Your task to perform on an android device: allow notifications from all sites in the chrome app Image 0: 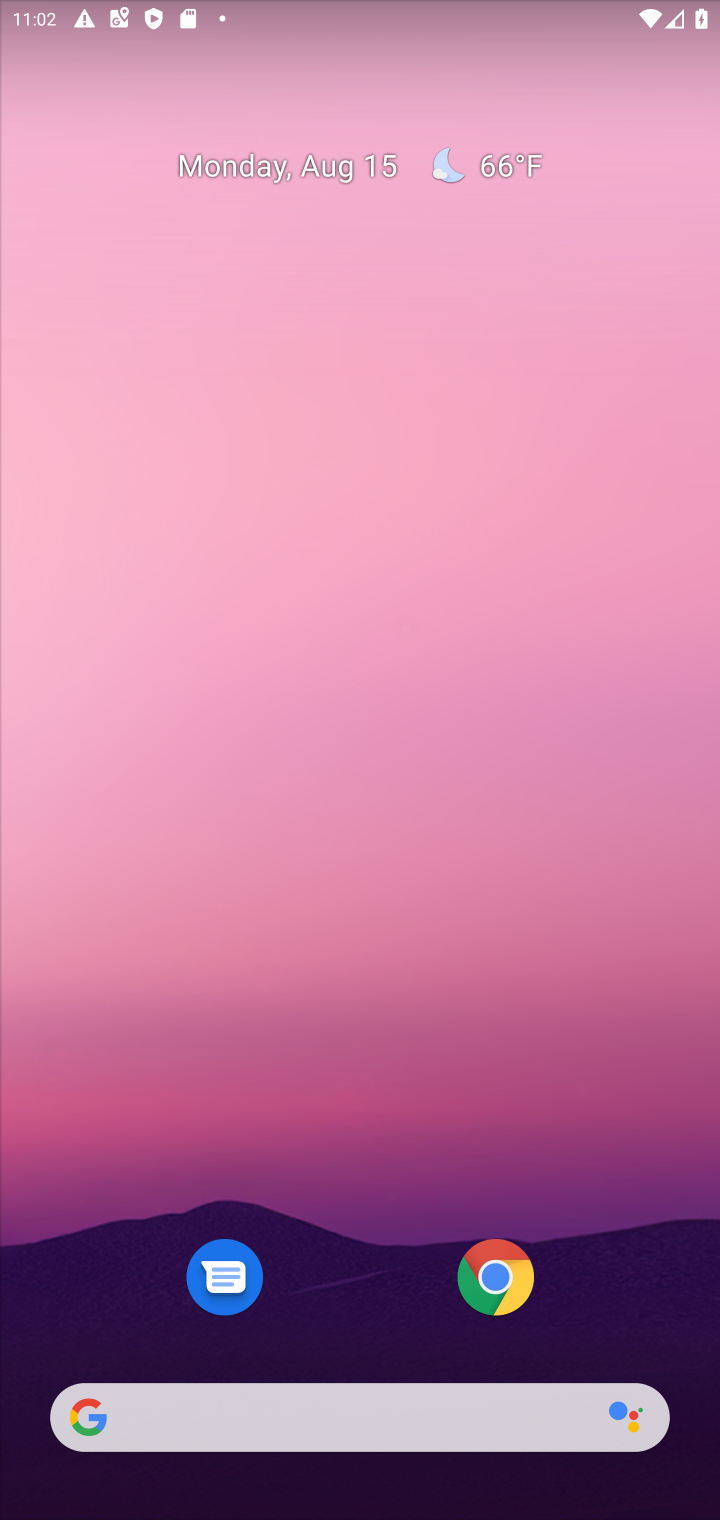
Step 0: drag from (387, 1302) to (374, 769)
Your task to perform on an android device: allow notifications from all sites in the chrome app Image 1: 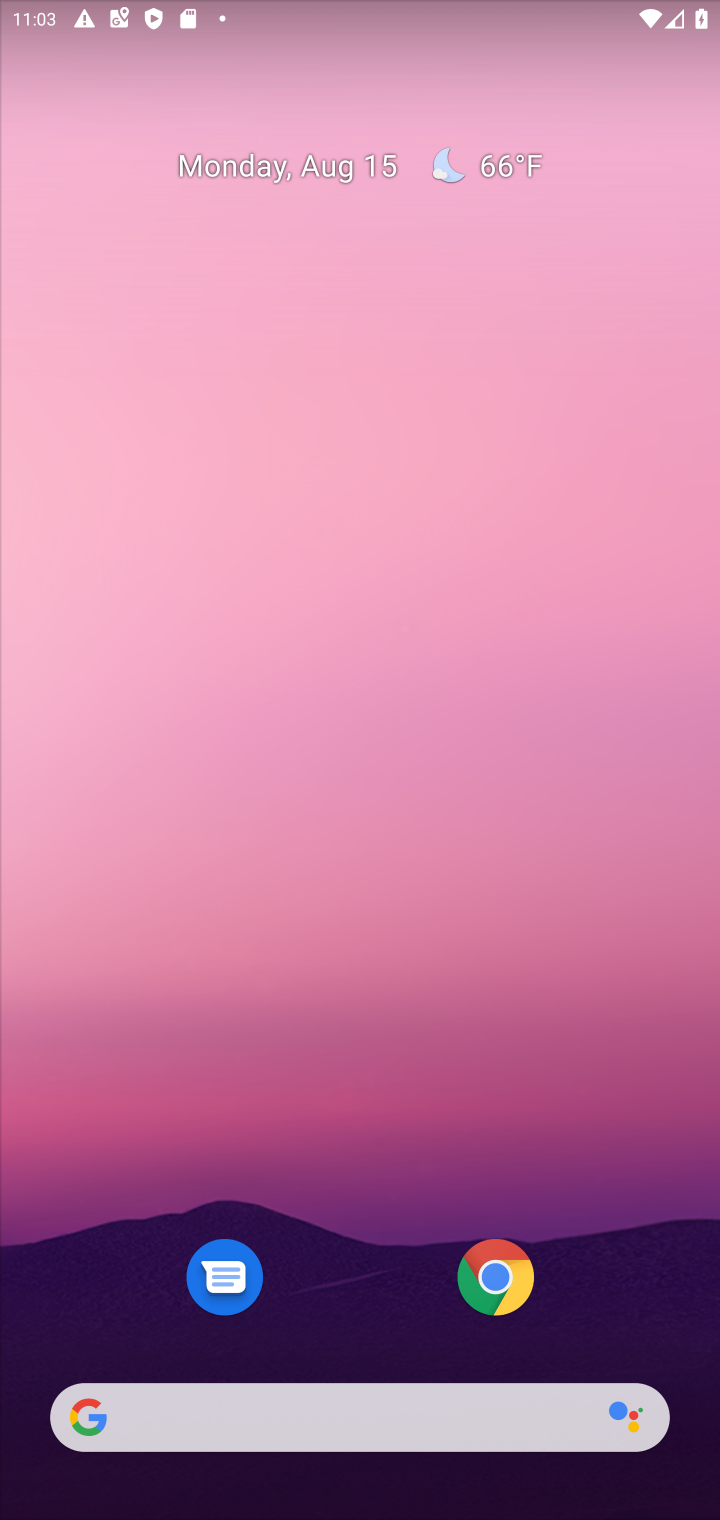
Step 1: click (536, 1295)
Your task to perform on an android device: allow notifications from all sites in the chrome app Image 2: 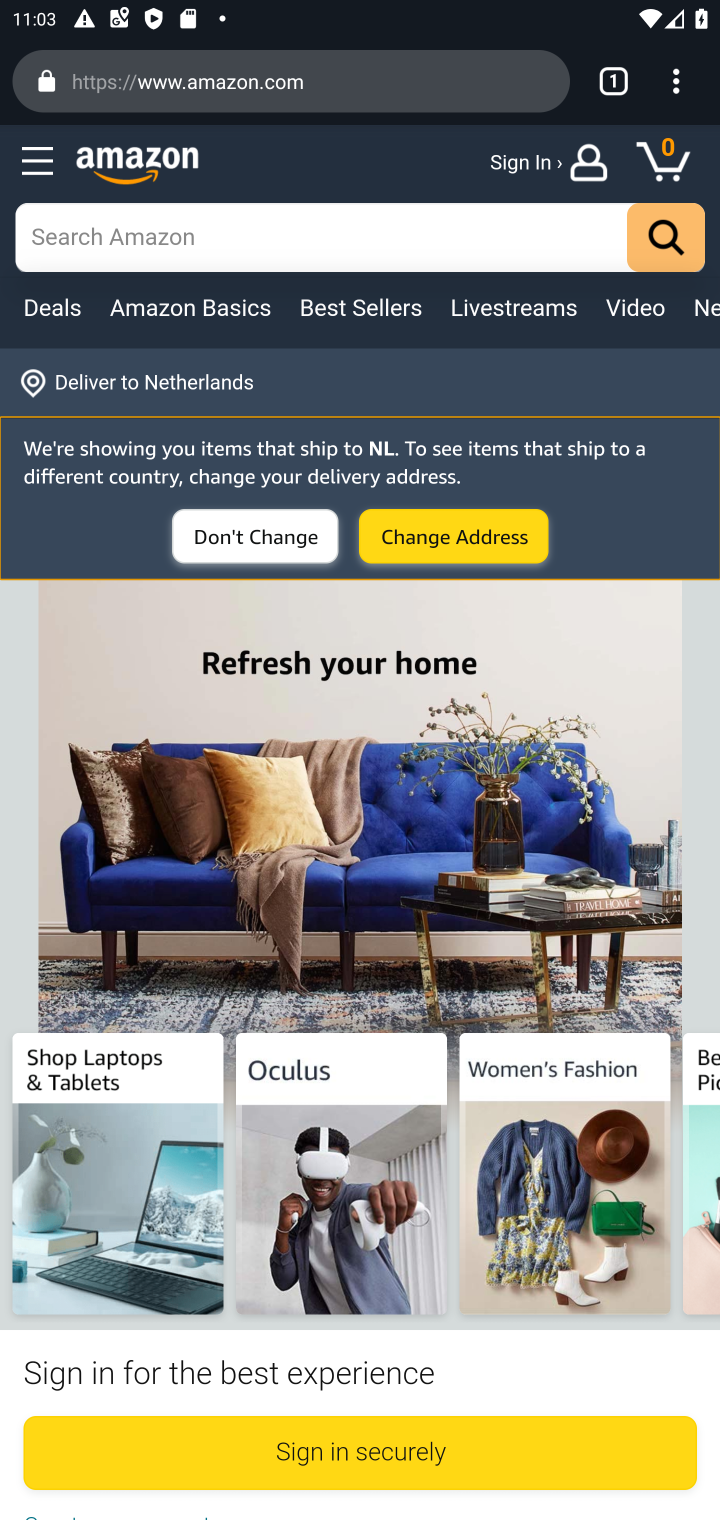
Step 2: click (680, 101)
Your task to perform on an android device: allow notifications from all sites in the chrome app Image 3: 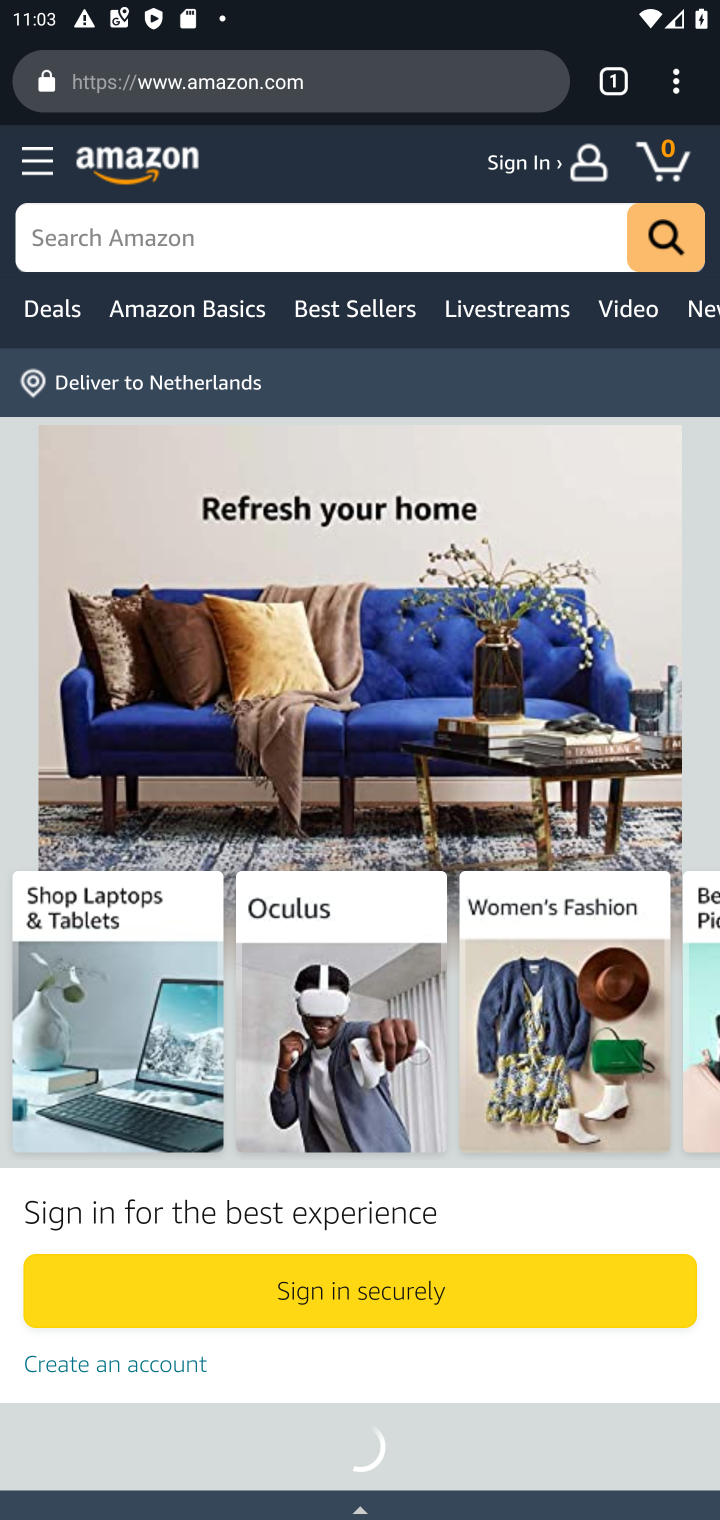
Step 3: drag from (680, 101) to (437, 1061)
Your task to perform on an android device: allow notifications from all sites in the chrome app Image 4: 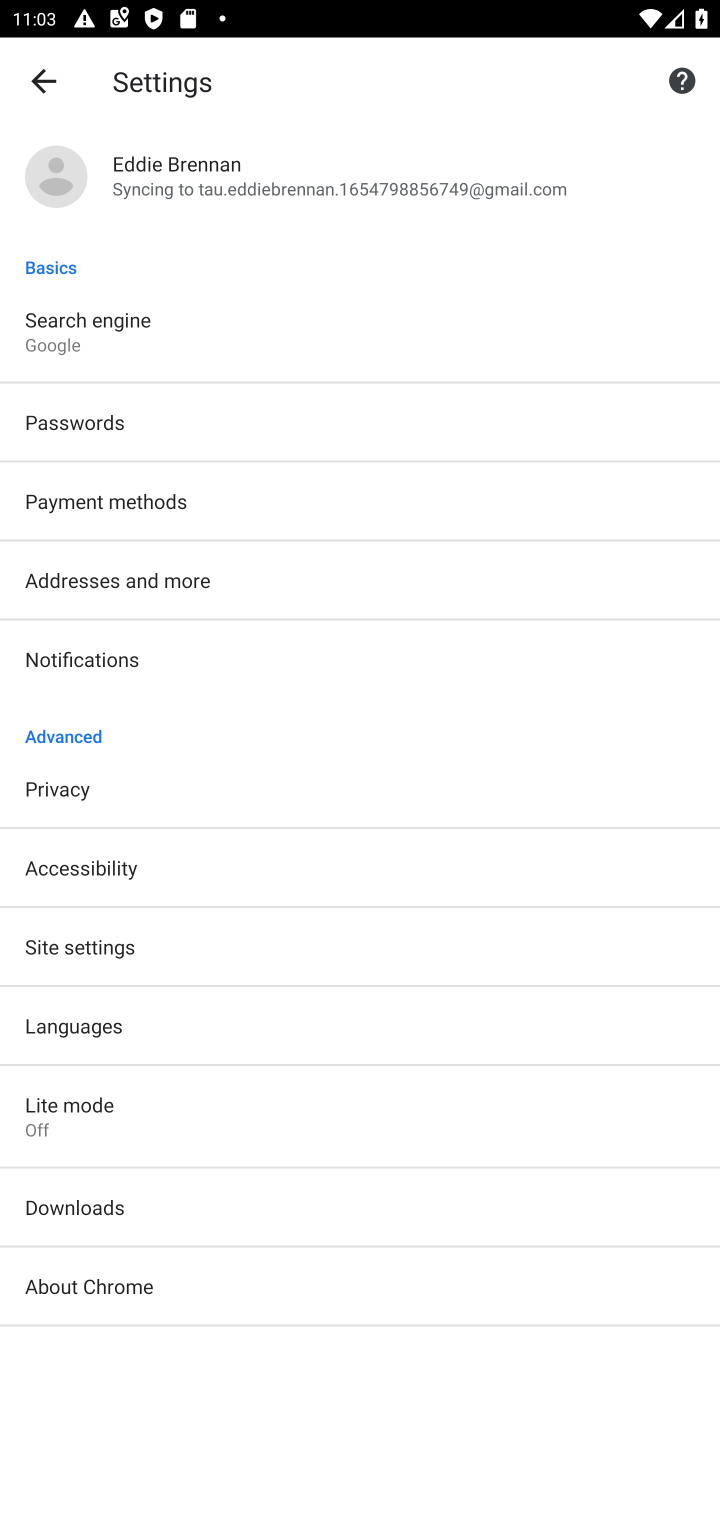
Step 4: click (100, 959)
Your task to perform on an android device: allow notifications from all sites in the chrome app Image 5: 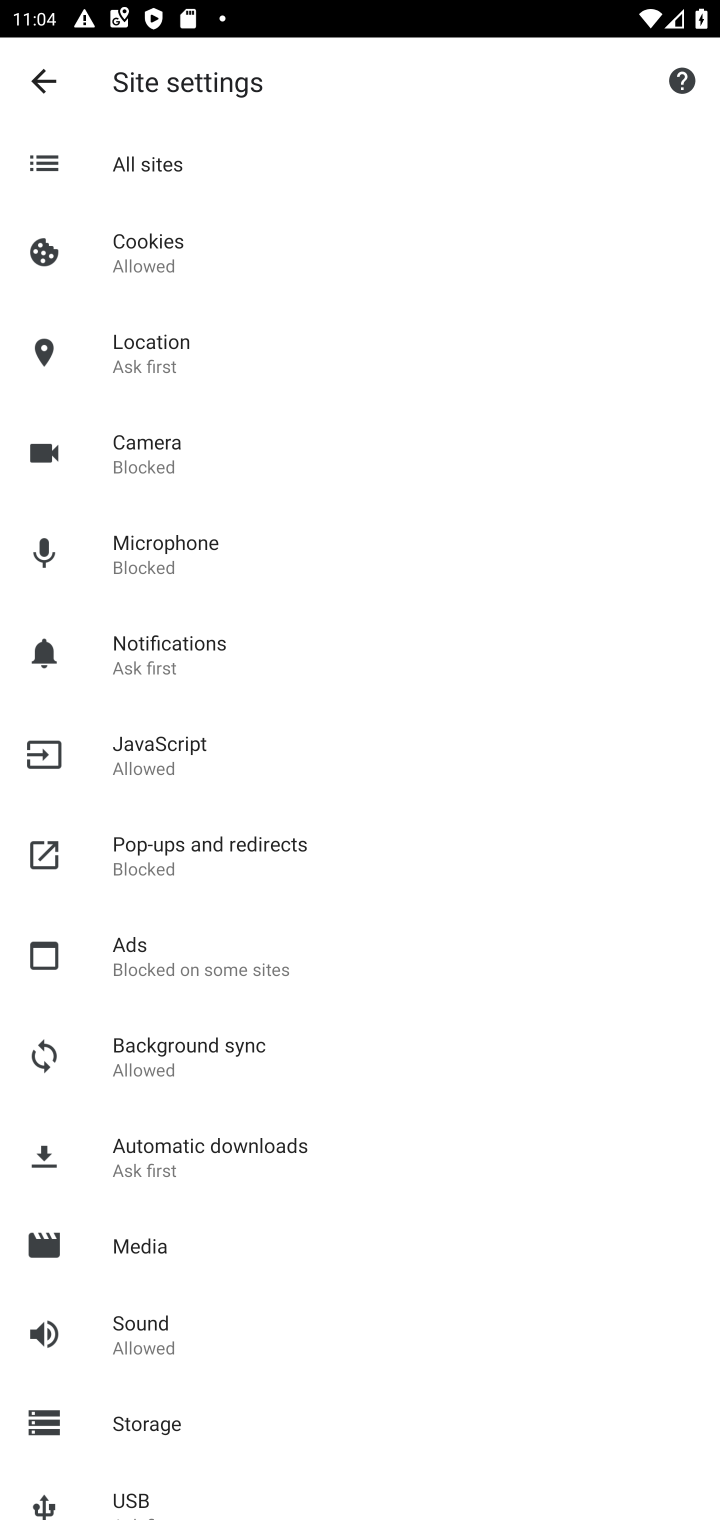
Step 5: click (266, 650)
Your task to perform on an android device: allow notifications from all sites in the chrome app Image 6: 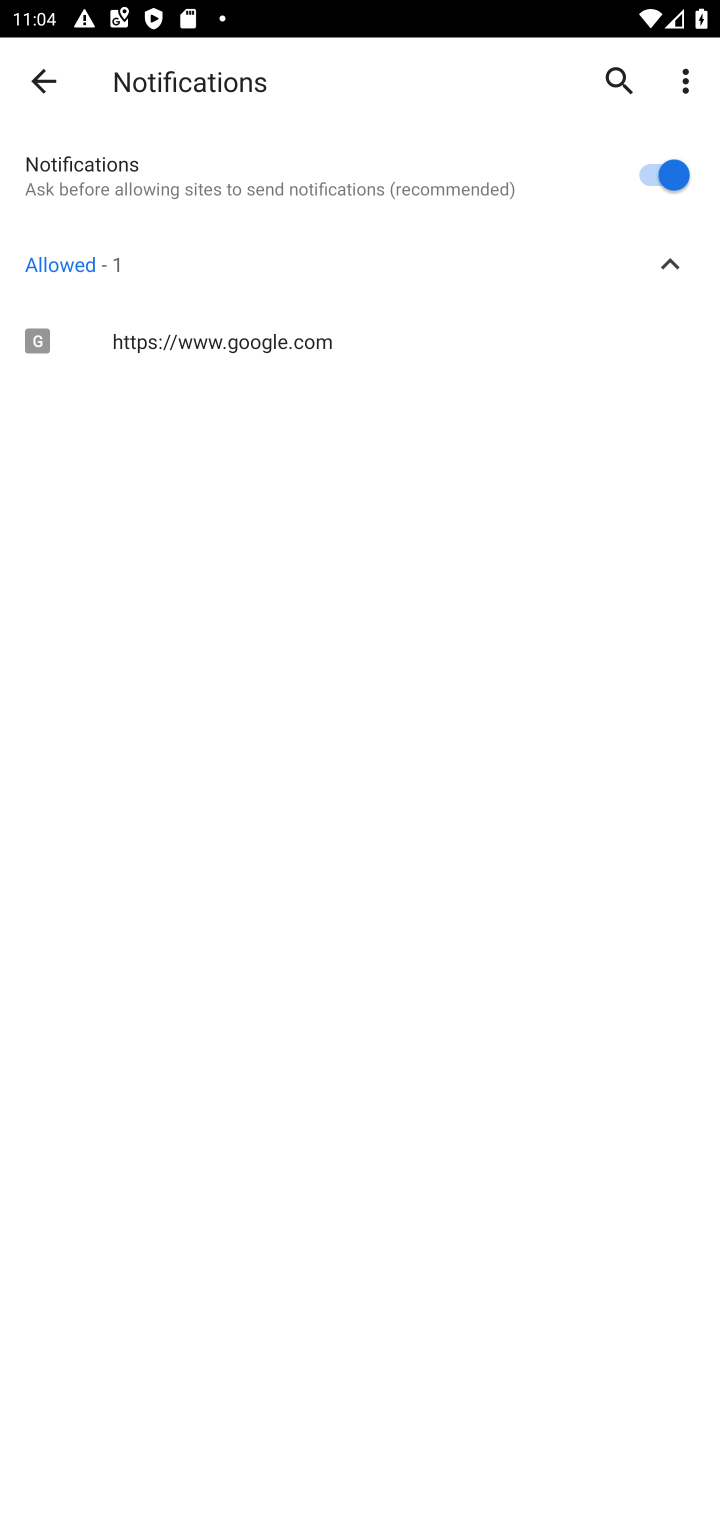
Step 6: task complete